Your task to perform on an android device: toggle notification dots Image 0: 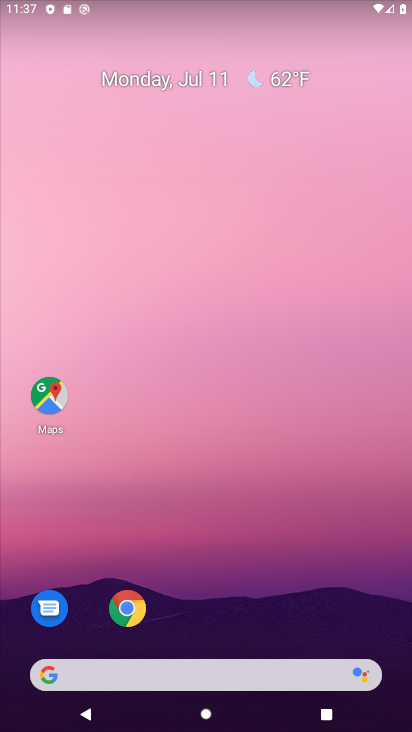
Step 0: drag from (343, 595) to (220, 20)
Your task to perform on an android device: toggle notification dots Image 1: 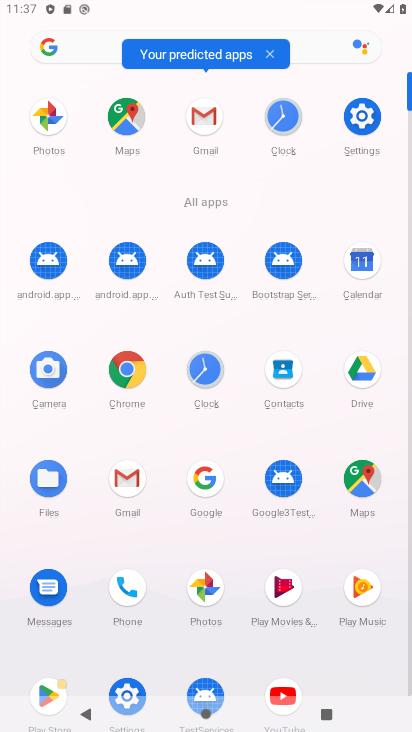
Step 1: click (365, 118)
Your task to perform on an android device: toggle notification dots Image 2: 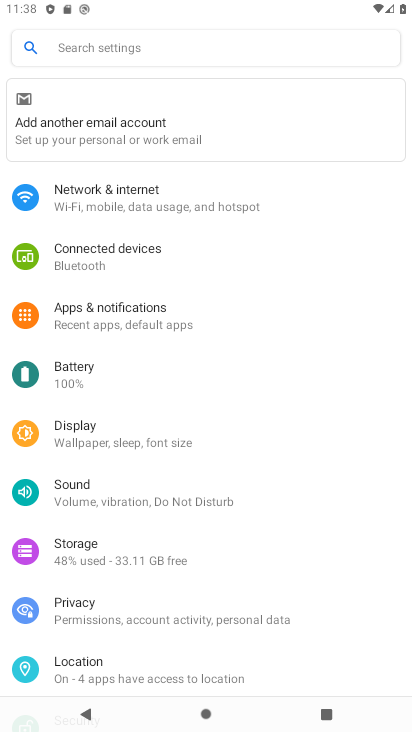
Step 2: click (146, 322)
Your task to perform on an android device: toggle notification dots Image 3: 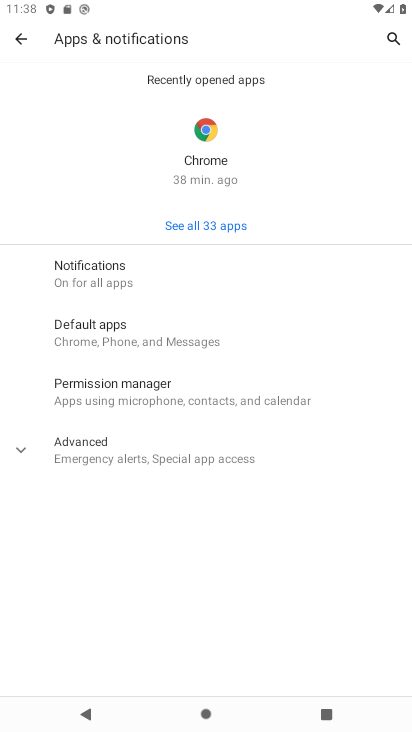
Step 3: click (77, 281)
Your task to perform on an android device: toggle notification dots Image 4: 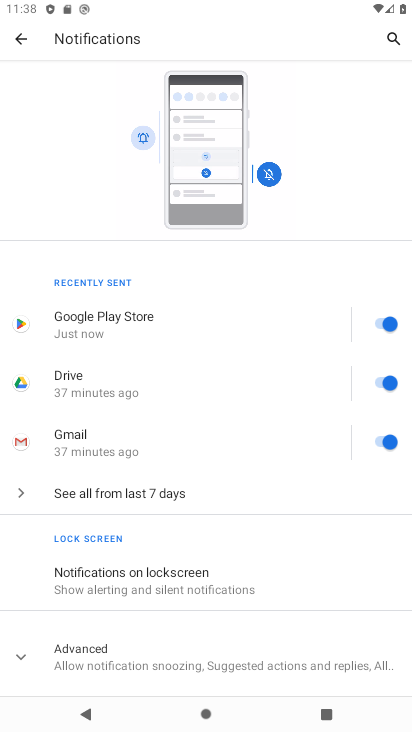
Step 4: drag from (139, 619) to (164, 259)
Your task to perform on an android device: toggle notification dots Image 5: 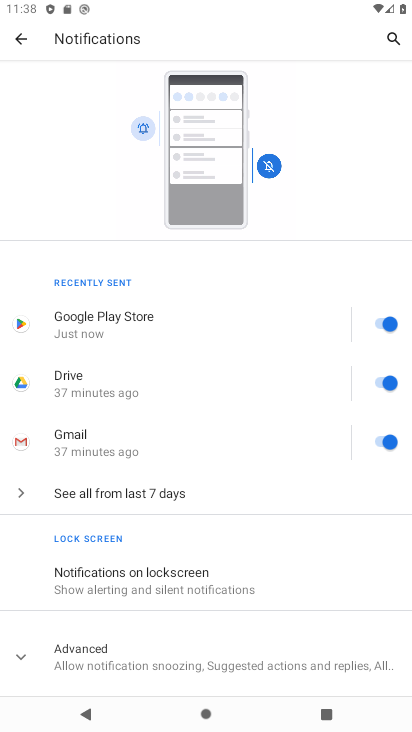
Step 5: click (130, 660)
Your task to perform on an android device: toggle notification dots Image 6: 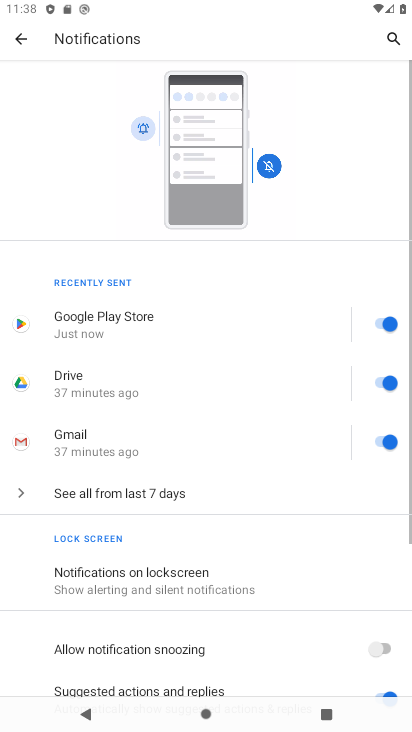
Step 6: drag from (130, 659) to (216, 227)
Your task to perform on an android device: toggle notification dots Image 7: 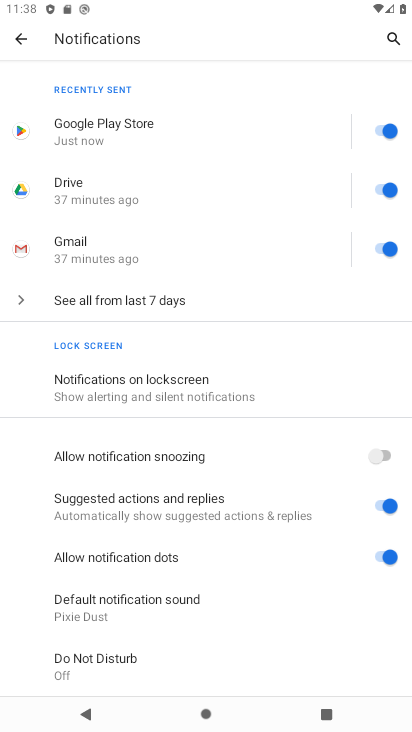
Step 7: click (378, 556)
Your task to perform on an android device: toggle notification dots Image 8: 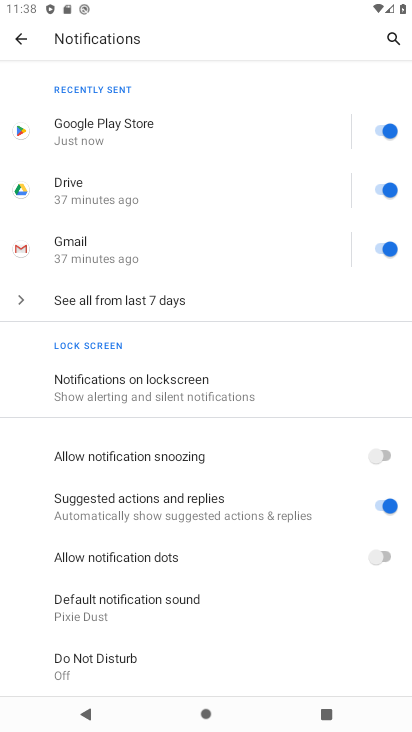
Step 8: task complete